Your task to perform on an android device: turn vacation reply on in the gmail app Image 0: 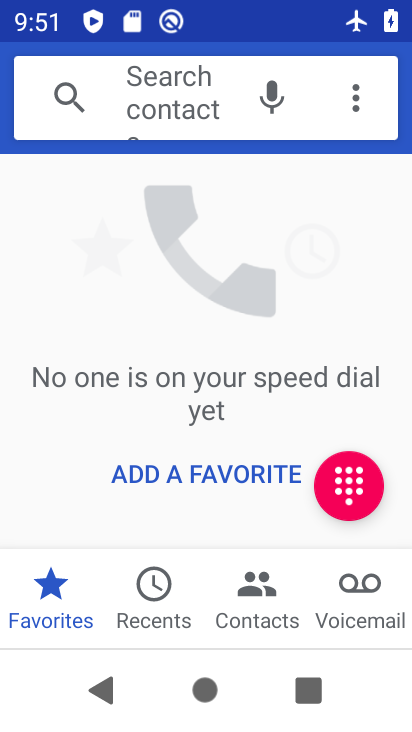
Step 0: press home button
Your task to perform on an android device: turn vacation reply on in the gmail app Image 1: 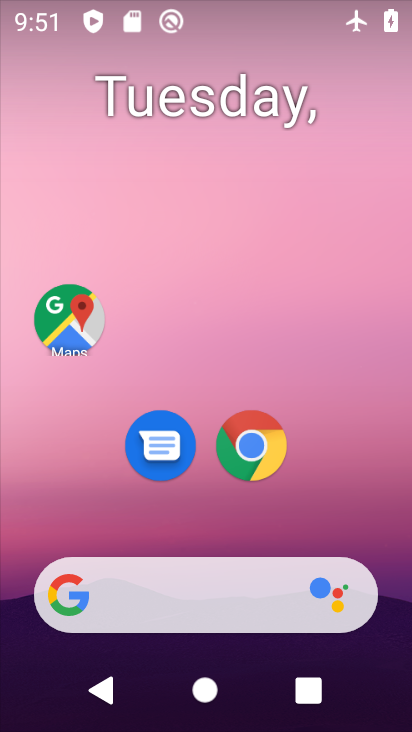
Step 1: drag from (400, 586) to (288, 196)
Your task to perform on an android device: turn vacation reply on in the gmail app Image 2: 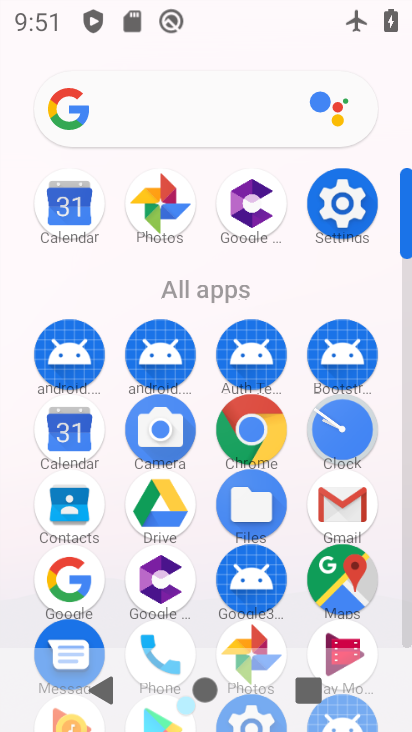
Step 2: click (355, 512)
Your task to perform on an android device: turn vacation reply on in the gmail app Image 3: 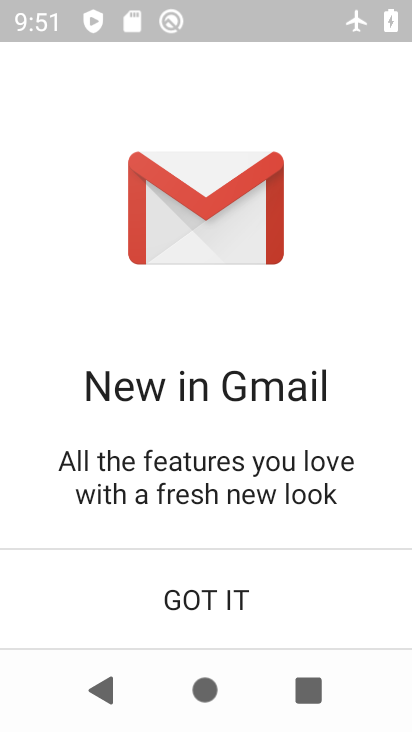
Step 3: click (208, 599)
Your task to perform on an android device: turn vacation reply on in the gmail app Image 4: 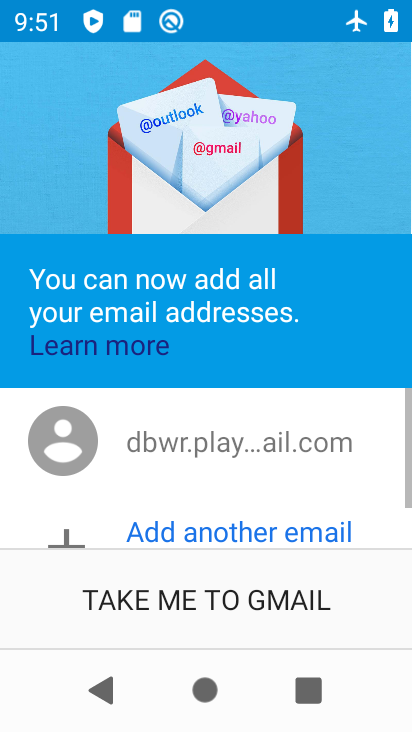
Step 4: click (208, 599)
Your task to perform on an android device: turn vacation reply on in the gmail app Image 5: 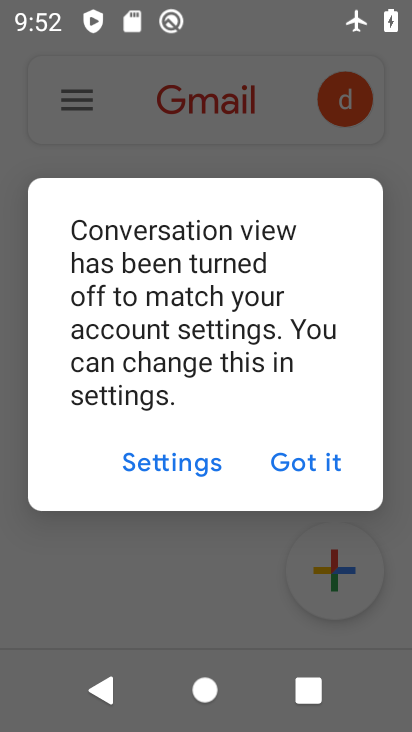
Step 5: click (302, 470)
Your task to perform on an android device: turn vacation reply on in the gmail app Image 6: 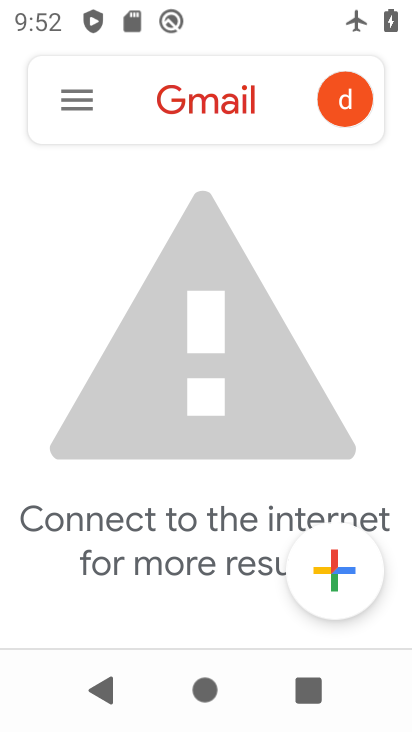
Step 6: click (70, 101)
Your task to perform on an android device: turn vacation reply on in the gmail app Image 7: 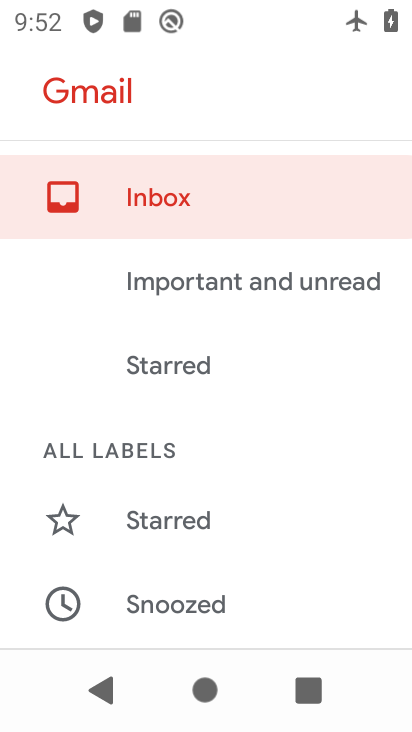
Step 7: drag from (188, 580) to (182, 152)
Your task to perform on an android device: turn vacation reply on in the gmail app Image 8: 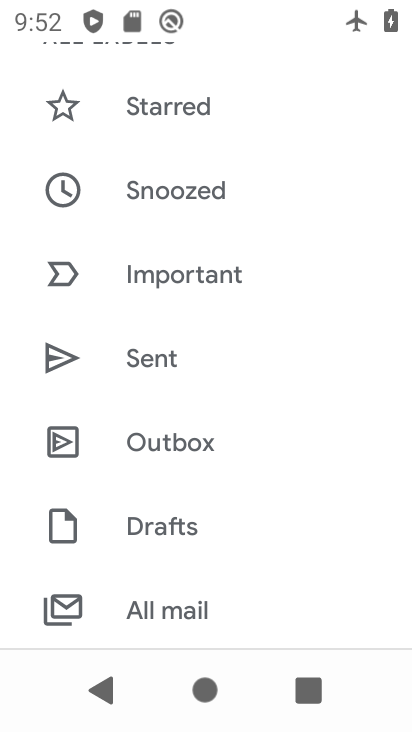
Step 8: drag from (217, 565) to (190, 122)
Your task to perform on an android device: turn vacation reply on in the gmail app Image 9: 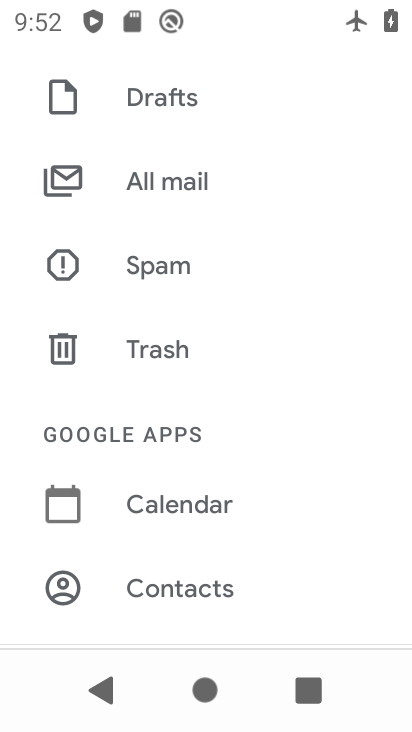
Step 9: drag from (204, 542) to (183, 156)
Your task to perform on an android device: turn vacation reply on in the gmail app Image 10: 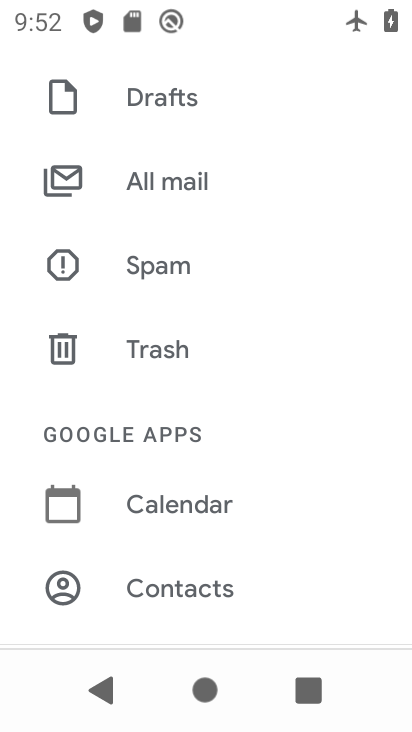
Step 10: drag from (160, 547) to (173, 75)
Your task to perform on an android device: turn vacation reply on in the gmail app Image 11: 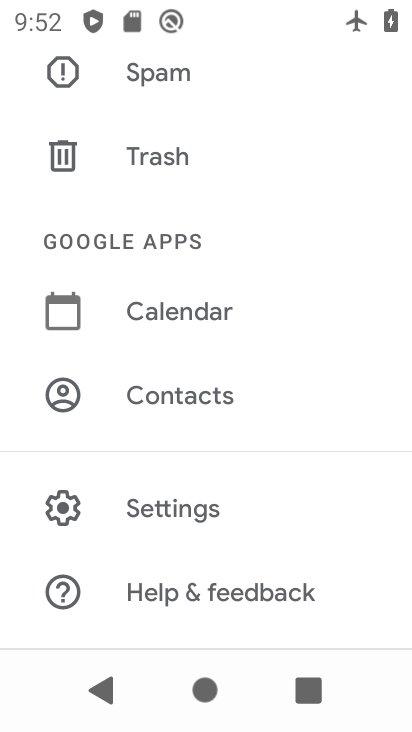
Step 11: click (196, 505)
Your task to perform on an android device: turn vacation reply on in the gmail app Image 12: 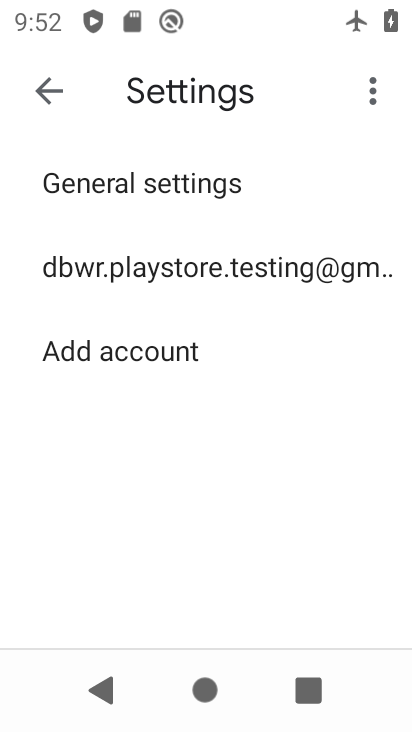
Step 12: click (253, 269)
Your task to perform on an android device: turn vacation reply on in the gmail app Image 13: 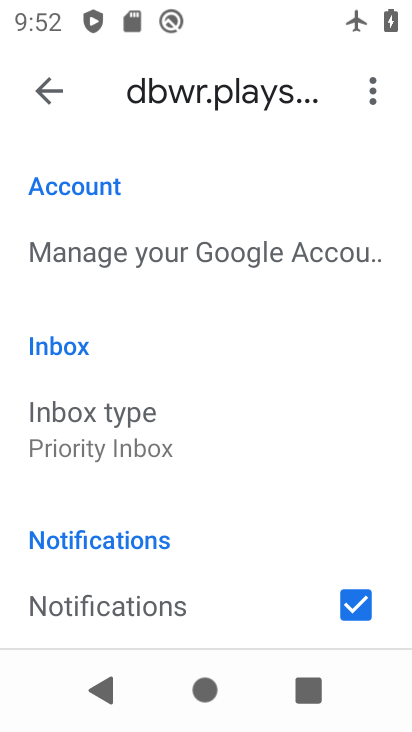
Step 13: drag from (209, 574) to (182, 35)
Your task to perform on an android device: turn vacation reply on in the gmail app Image 14: 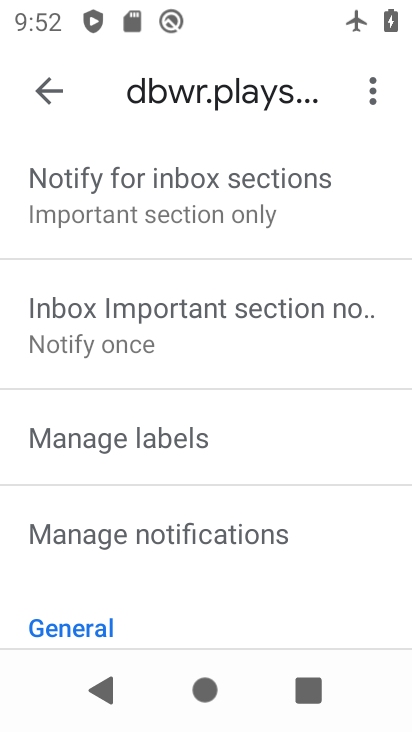
Step 14: drag from (196, 478) to (190, 163)
Your task to perform on an android device: turn vacation reply on in the gmail app Image 15: 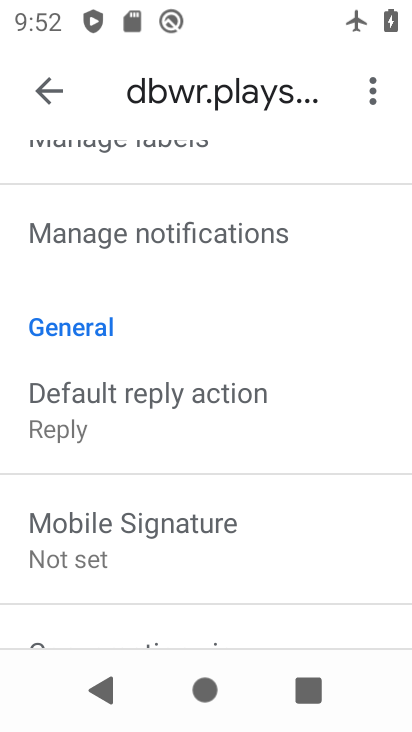
Step 15: drag from (199, 496) to (189, 140)
Your task to perform on an android device: turn vacation reply on in the gmail app Image 16: 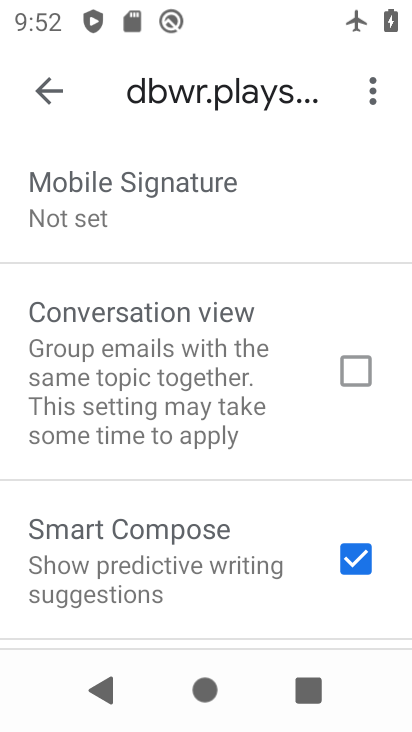
Step 16: drag from (201, 462) to (196, 140)
Your task to perform on an android device: turn vacation reply on in the gmail app Image 17: 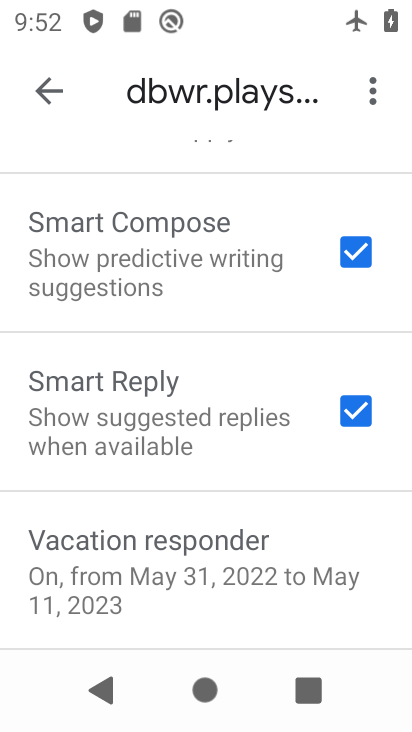
Step 17: drag from (205, 469) to (186, 221)
Your task to perform on an android device: turn vacation reply on in the gmail app Image 18: 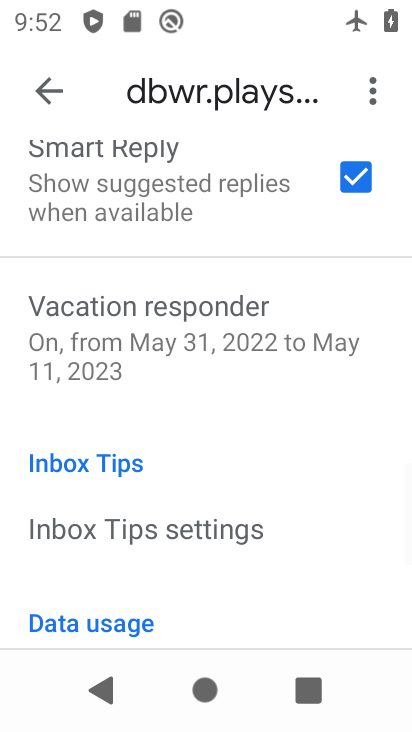
Step 18: click (218, 330)
Your task to perform on an android device: turn vacation reply on in the gmail app Image 19: 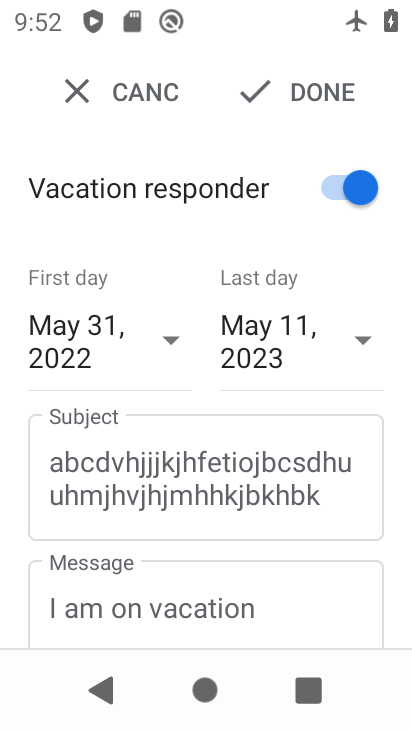
Step 19: click (312, 98)
Your task to perform on an android device: turn vacation reply on in the gmail app Image 20: 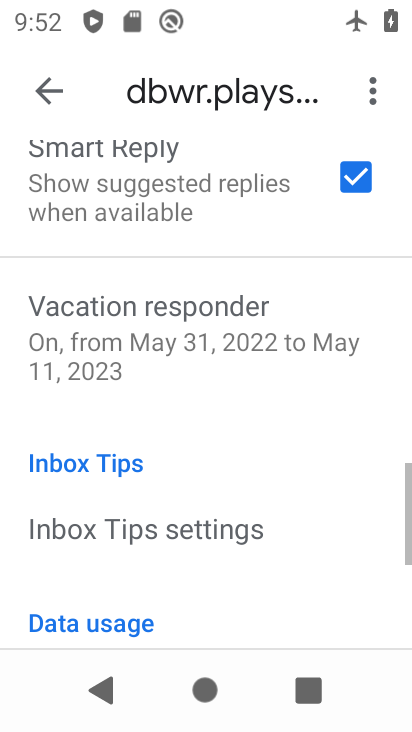
Step 20: task complete